Your task to perform on an android device: stop showing notifications on the lock screen Image 0: 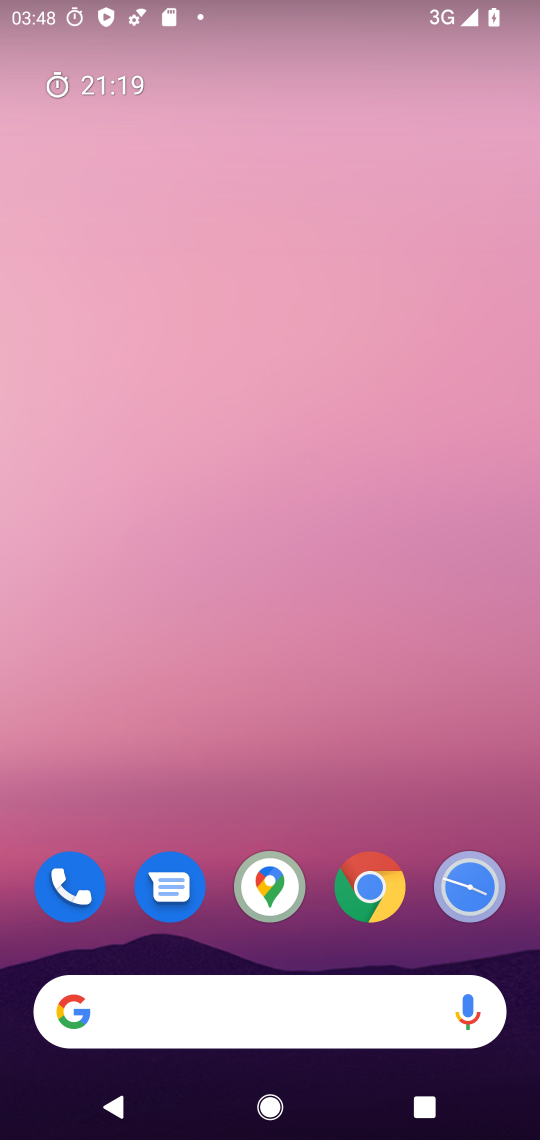
Step 0: press home button
Your task to perform on an android device: stop showing notifications on the lock screen Image 1: 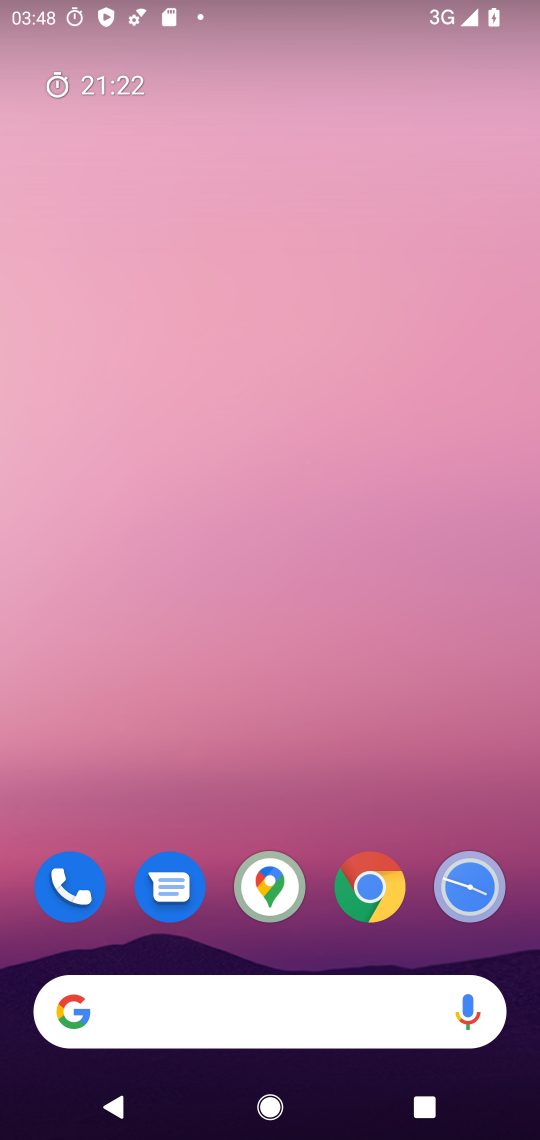
Step 1: drag from (396, 761) to (369, 258)
Your task to perform on an android device: stop showing notifications on the lock screen Image 2: 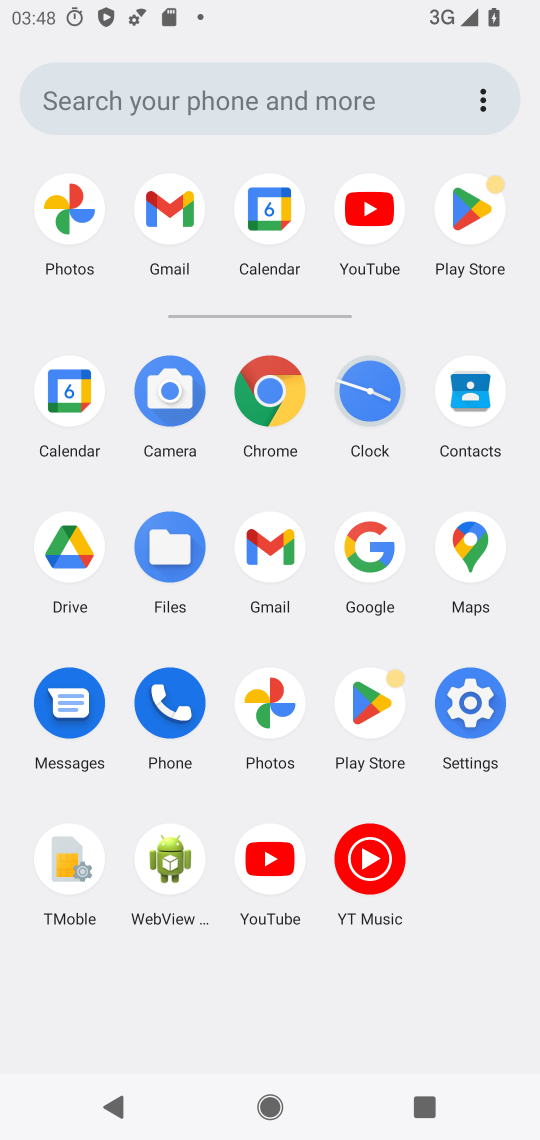
Step 2: click (479, 715)
Your task to perform on an android device: stop showing notifications on the lock screen Image 3: 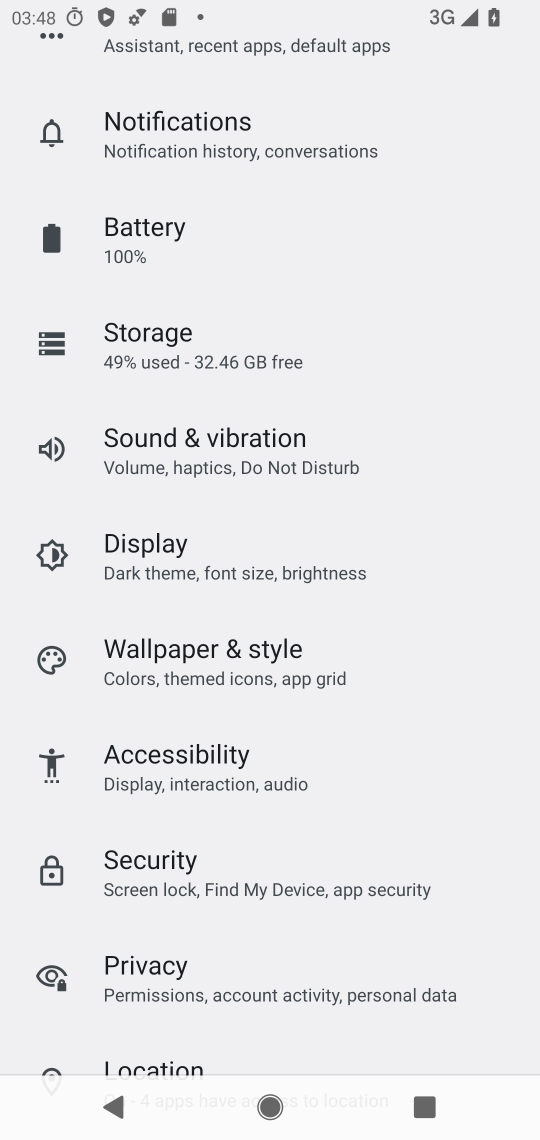
Step 3: drag from (491, 459) to (473, 596)
Your task to perform on an android device: stop showing notifications on the lock screen Image 4: 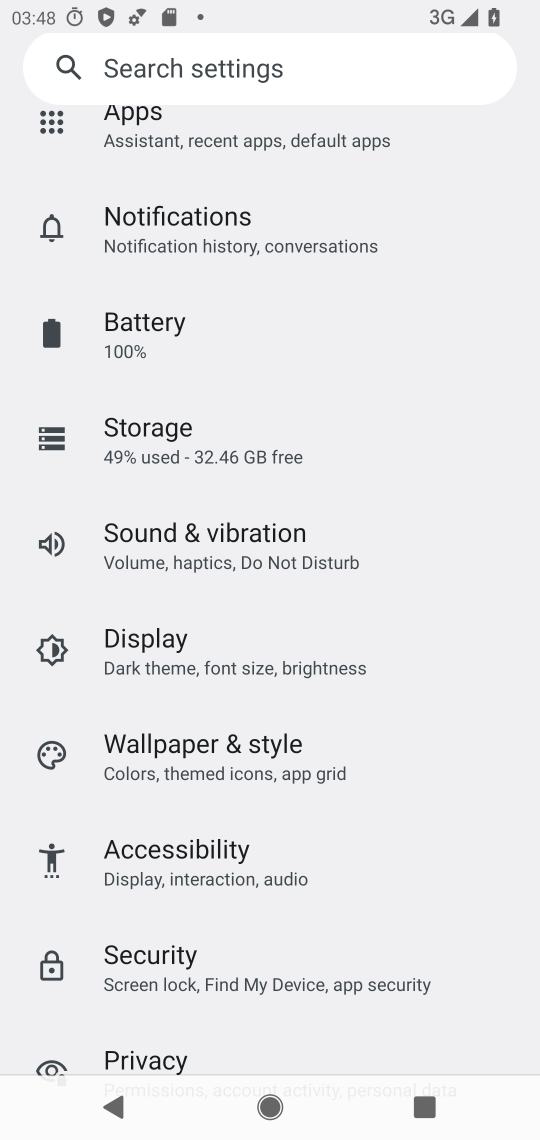
Step 4: drag from (462, 335) to (474, 478)
Your task to perform on an android device: stop showing notifications on the lock screen Image 5: 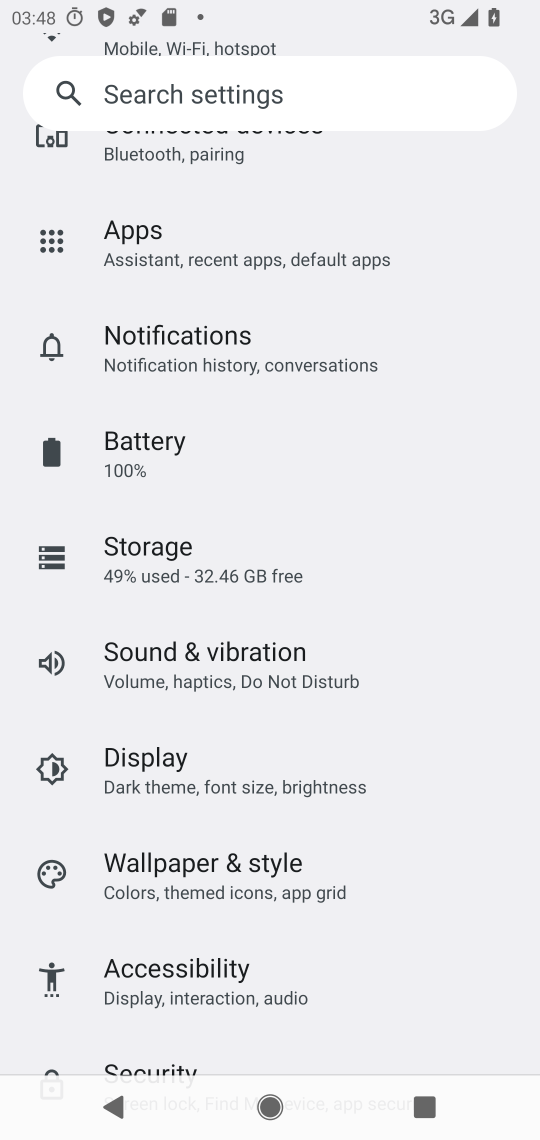
Step 5: drag from (457, 237) to (462, 436)
Your task to perform on an android device: stop showing notifications on the lock screen Image 6: 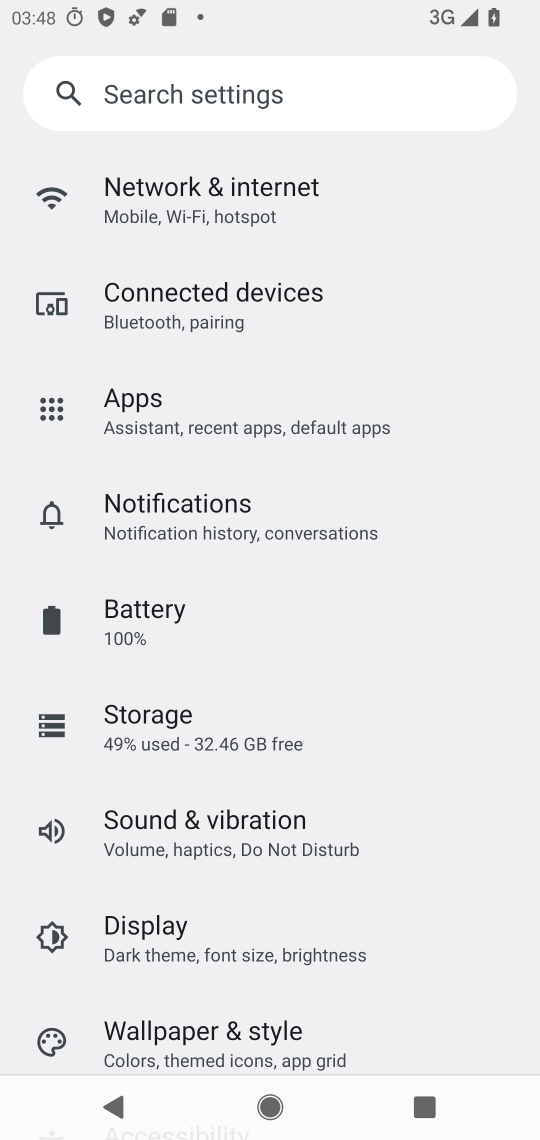
Step 6: drag from (445, 189) to (453, 397)
Your task to perform on an android device: stop showing notifications on the lock screen Image 7: 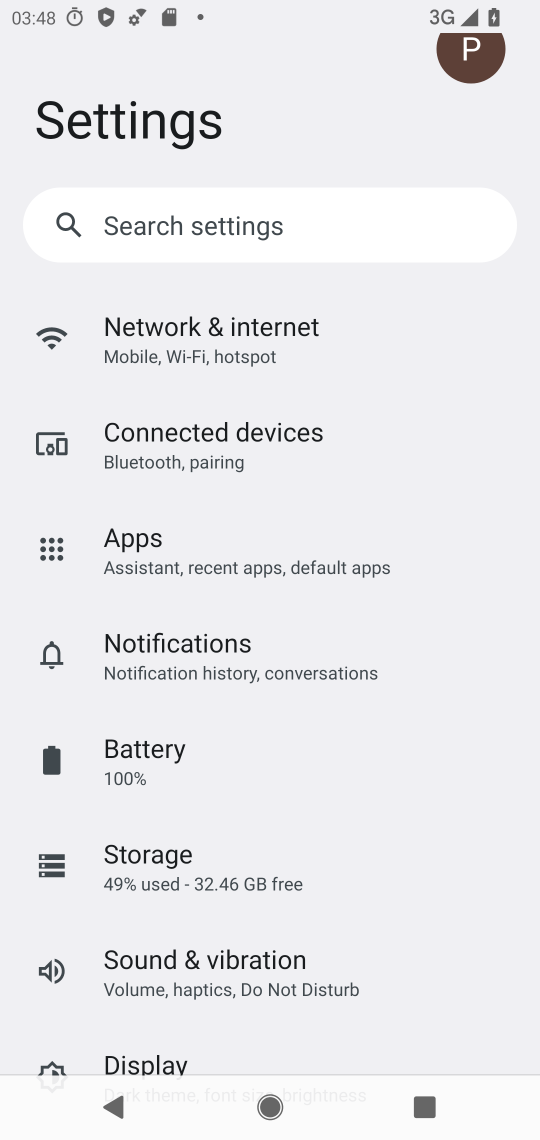
Step 7: click (456, 646)
Your task to perform on an android device: stop showing notifications on the lock screen Image 8: 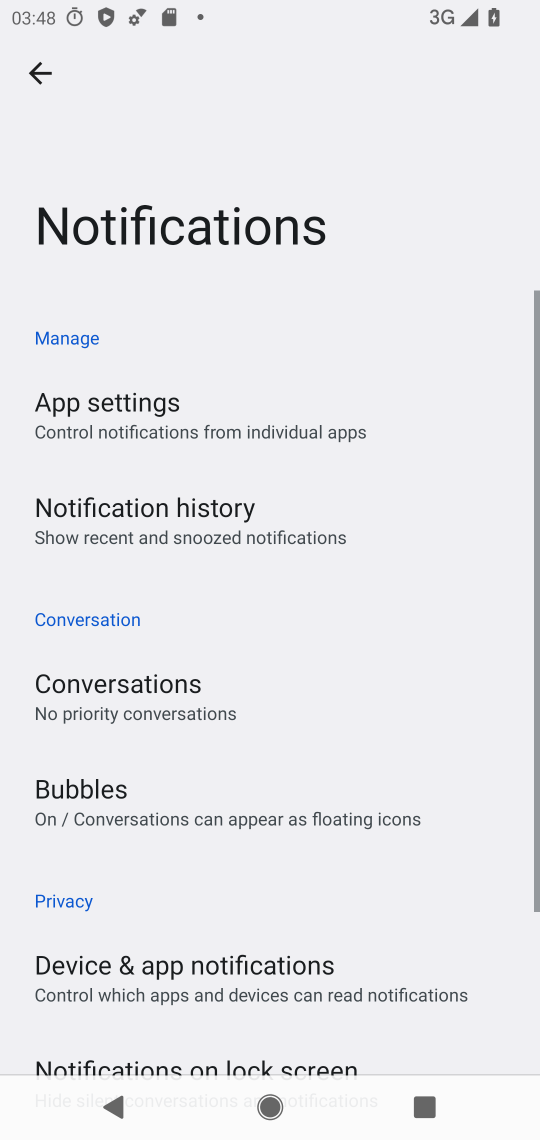
Step 8: drag from (462, 726) to (455, 576)
Your task to perform on an android device: stop showing notifications on the lock screen Image 9: 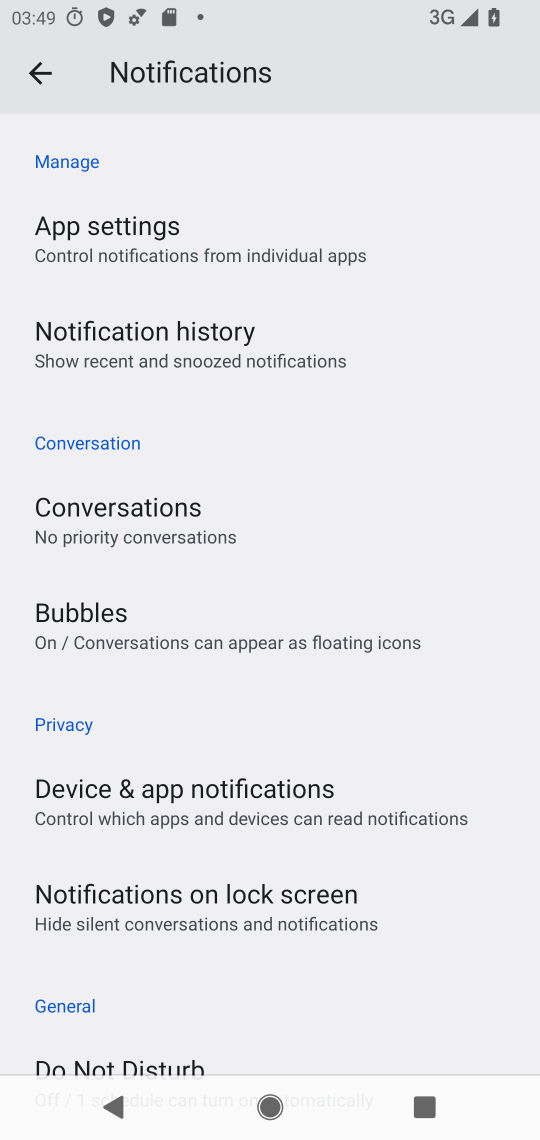
Step 9: drag from (461, 750) to (466, 597)
Your task to perform on an android device: stop showing notifications on the lock screen Image 10: 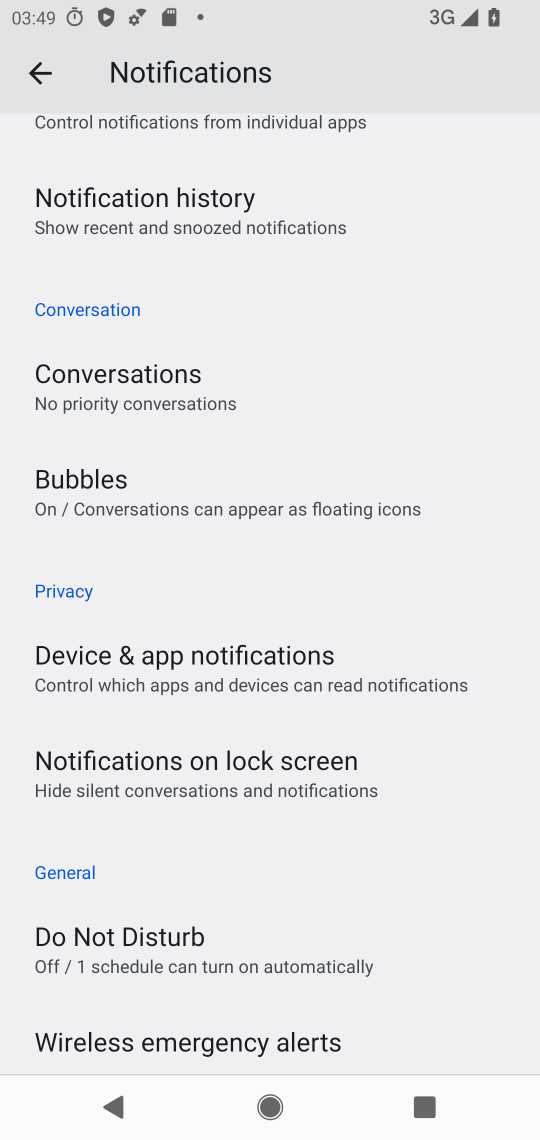
Step 10: drag from (466, 813) to (476, 610)
Your task to perform on an android device: stop showing notifications on the lock screen Image 11: 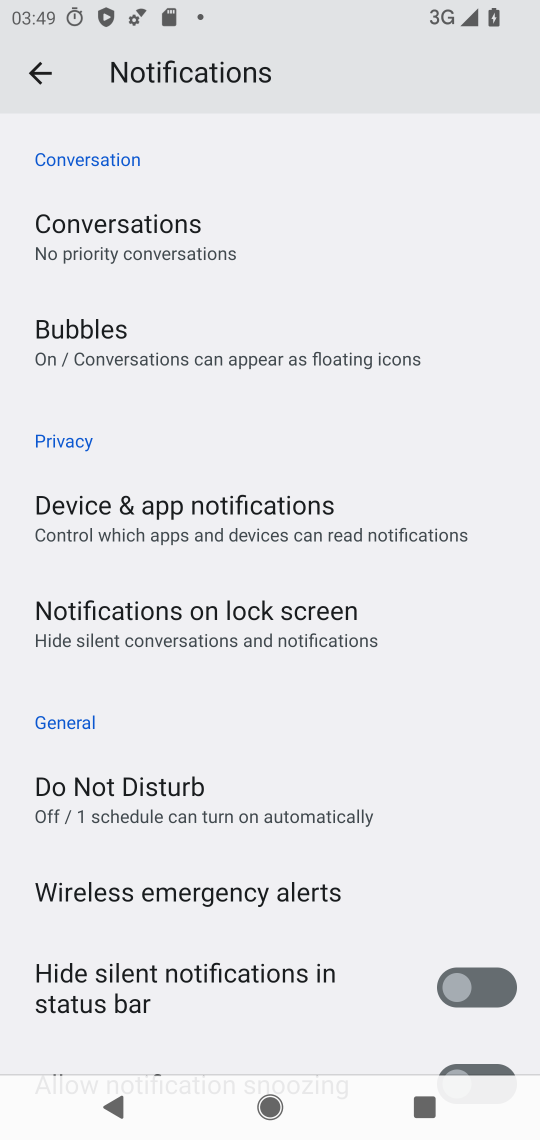
Step 11: drag from (472, 756) to (493, 610)
Your task to perform on an android device: stop showing notifications on the lock screen Image 12: 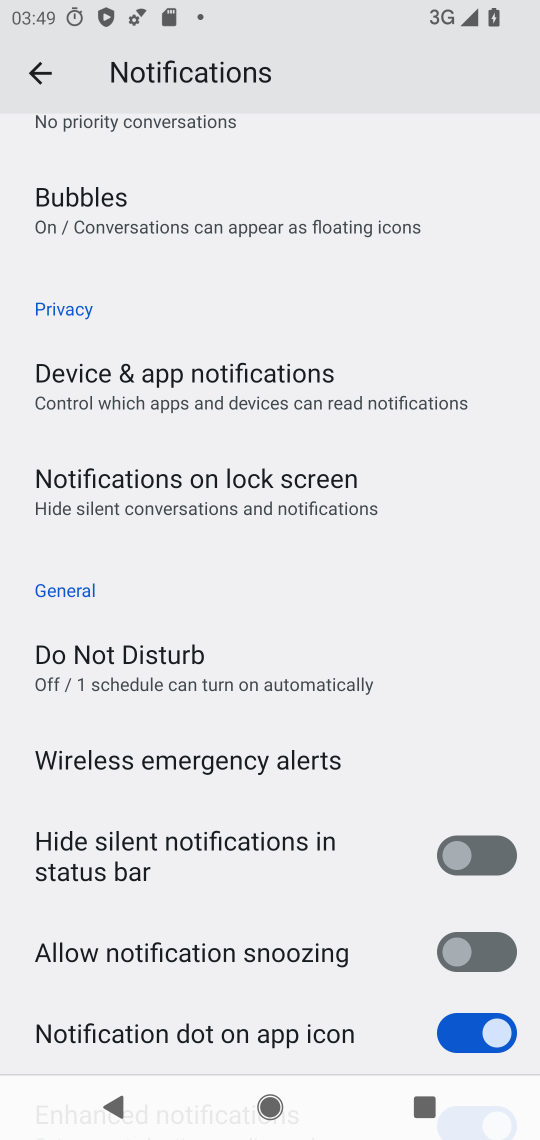
Step 12: click (387, 491)
Your task to perform on an android device: stop showing notifications on the lock screen Image 13: 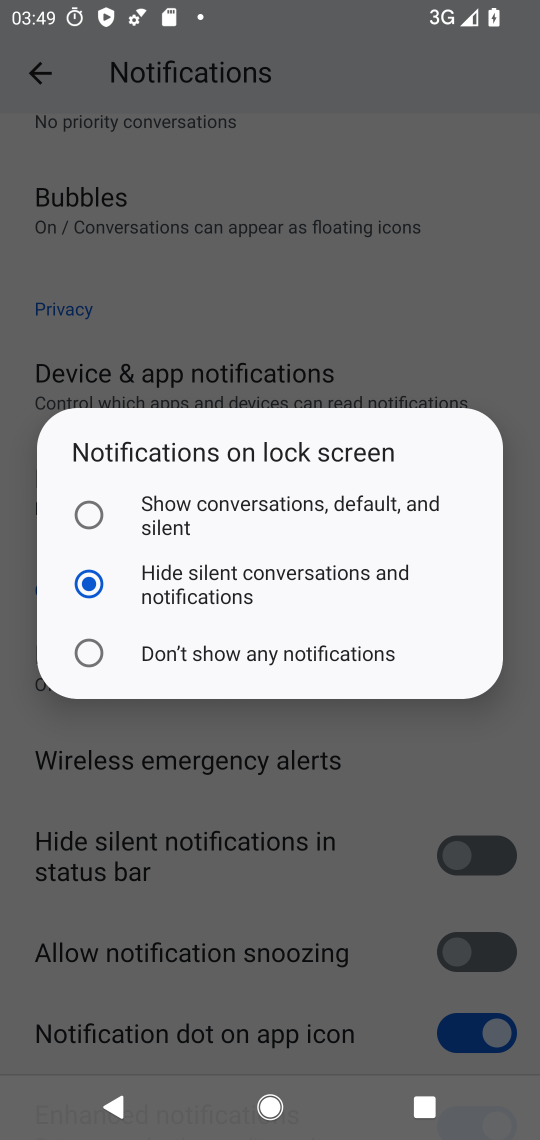
Step 13: click (345, 666)
Your task to perform on an android device: stop showing notifications on the lock screen Image 14: 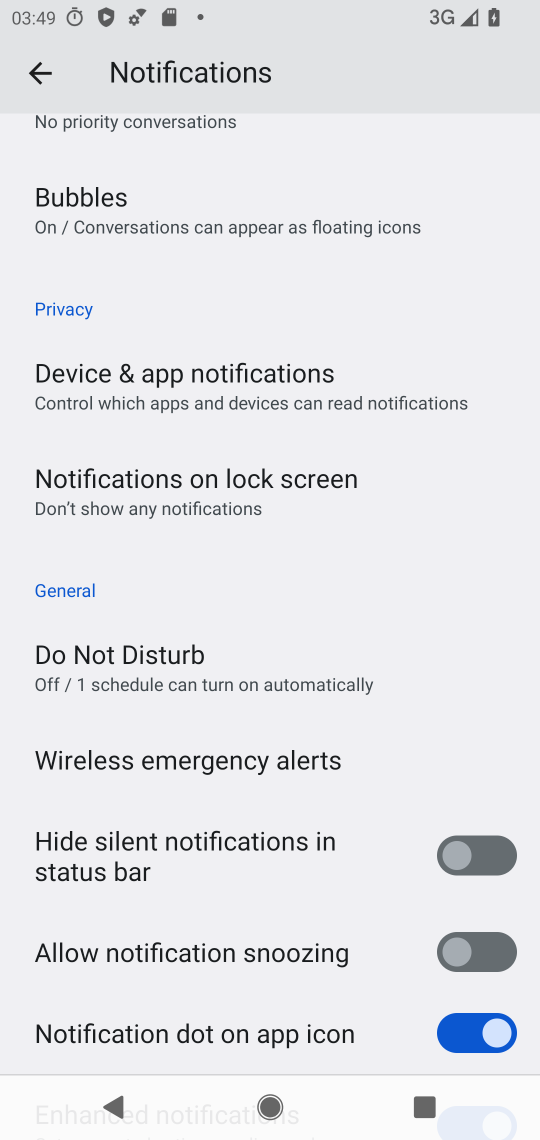
Step 14: task complete